Your task to perform on an android device: Search for seafood restaurants on Google Maps Image 0: 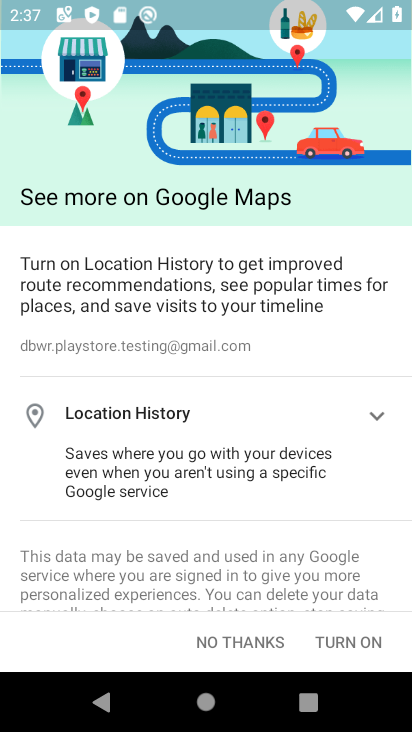
Step 0: task complete